Your task to perform on an android device: Clear all items from cart on newegg.com. Add "razer blade" to the cart on newegg.com, then select checkout. Image 0: 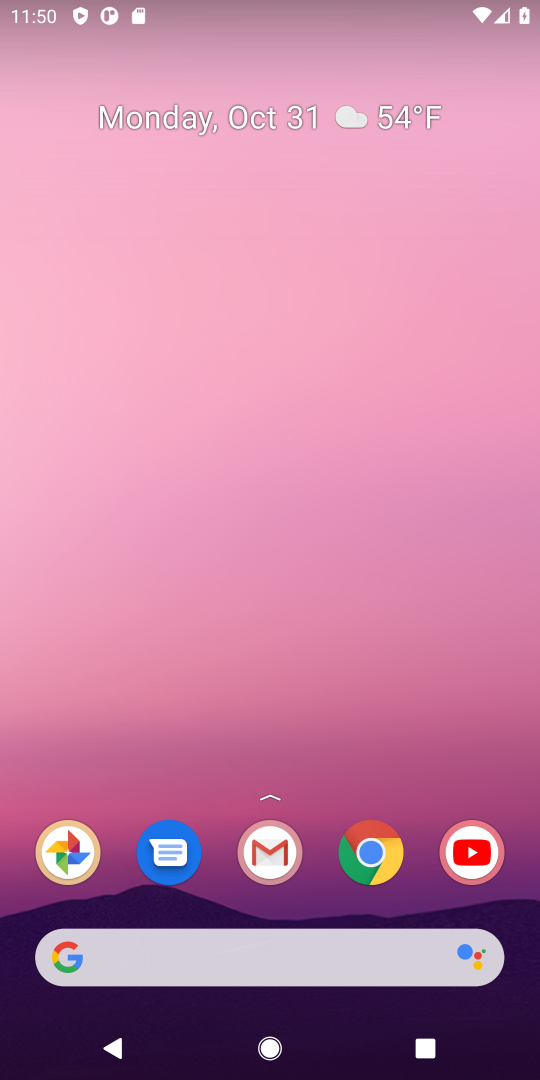
Step 0: click (385, 873)
Your task to perform on an android device: Clear all items from cart on newegg.com. Add "razer blade" to the cart on newegg.com, then select checkout. Image 1: 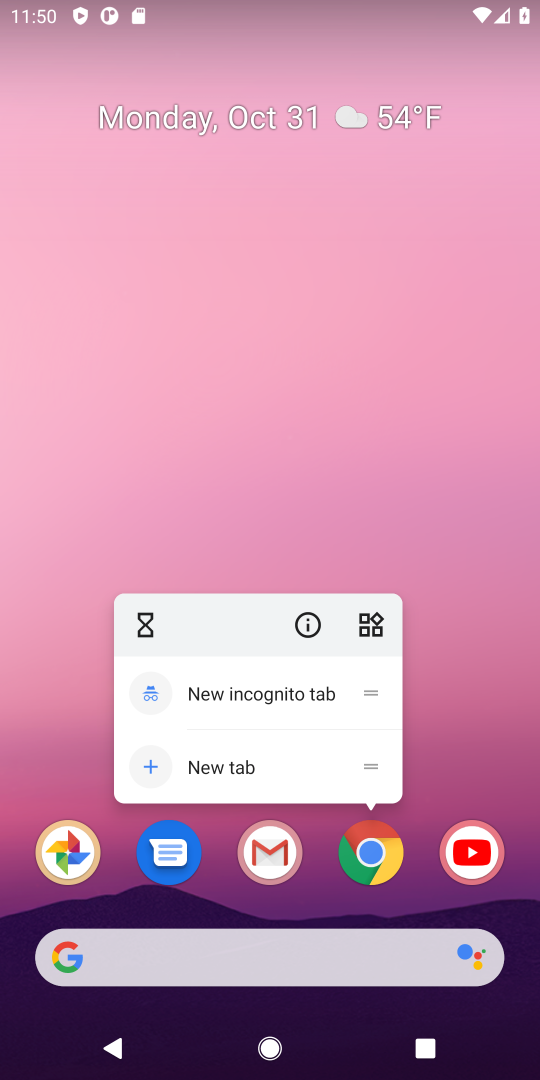
Step 1: click (388, 859)
Your task to perform on an android device: Clear all items from cart on newegg.com. Add "razer blade" to the cart on newegg.com, then select checkout. Image 2: 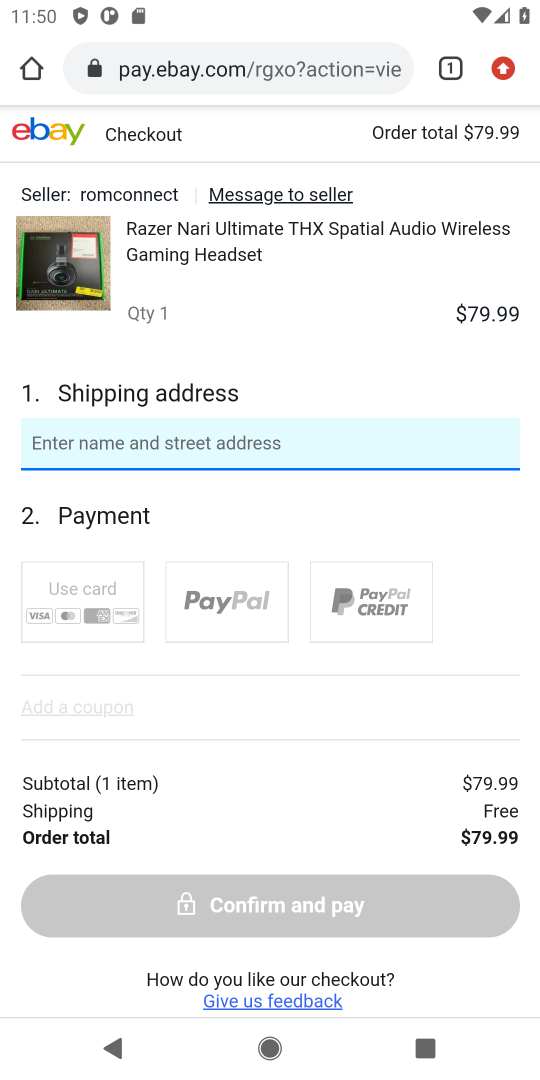
Step 2: click (337, 72)
Your task to perform on an android device: Clear all items from cart on newegg.com. Add "razer blade" to the cart on newegg.com, then select checkout. Image 3: 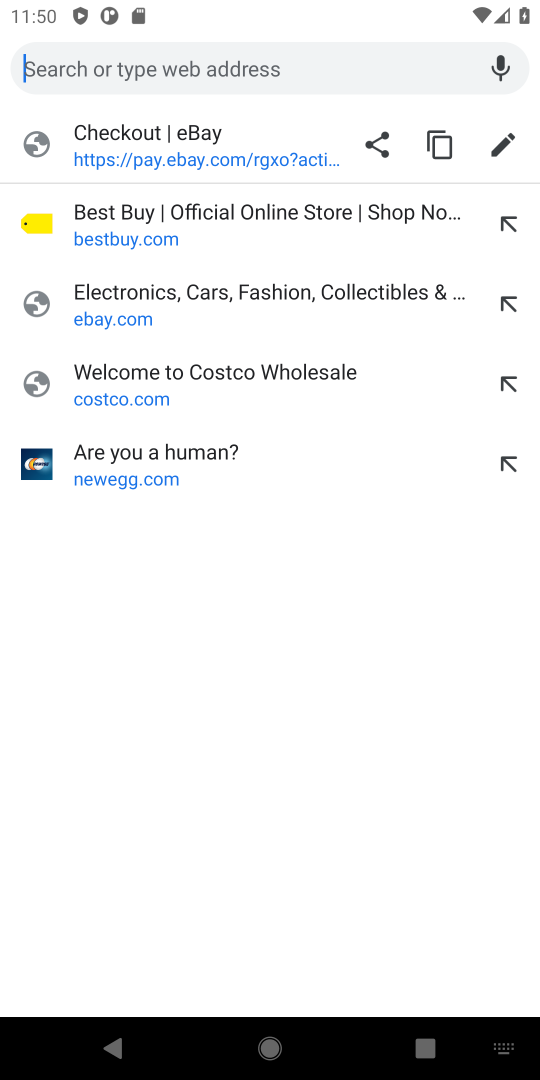
Step 3: type "newegg.com"
Your task to perform on an android device: Clear all items from cart on newegg.com. Add "razer blade" to the cart on newegg.com, then select checkout. Image 4: 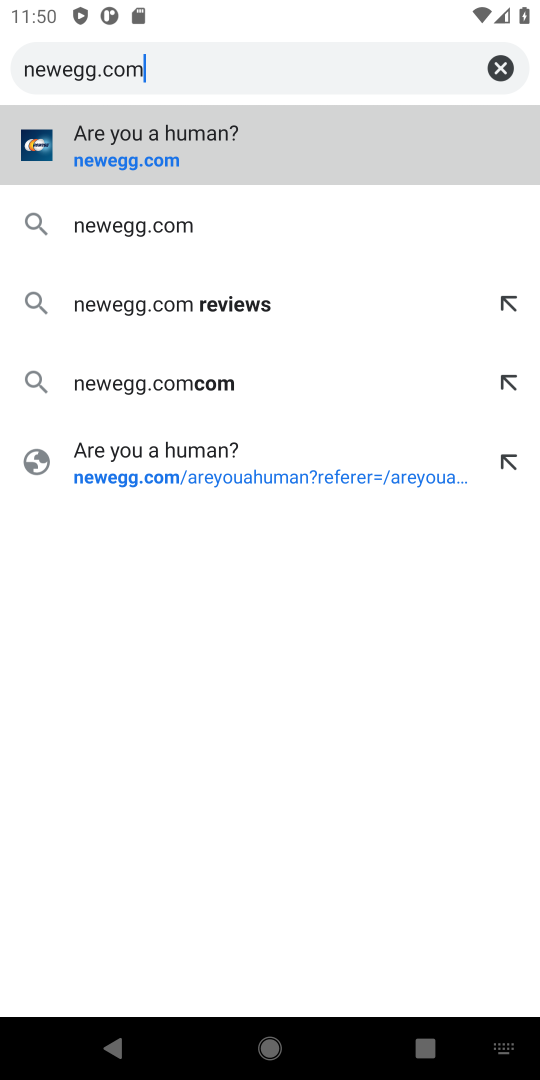
Step 4: press enter
Your task to perform on an android device: Clear all items from cart on newegg.com. Add "razer blade" to the cart on newegg.com, then select checkout. Image 5: 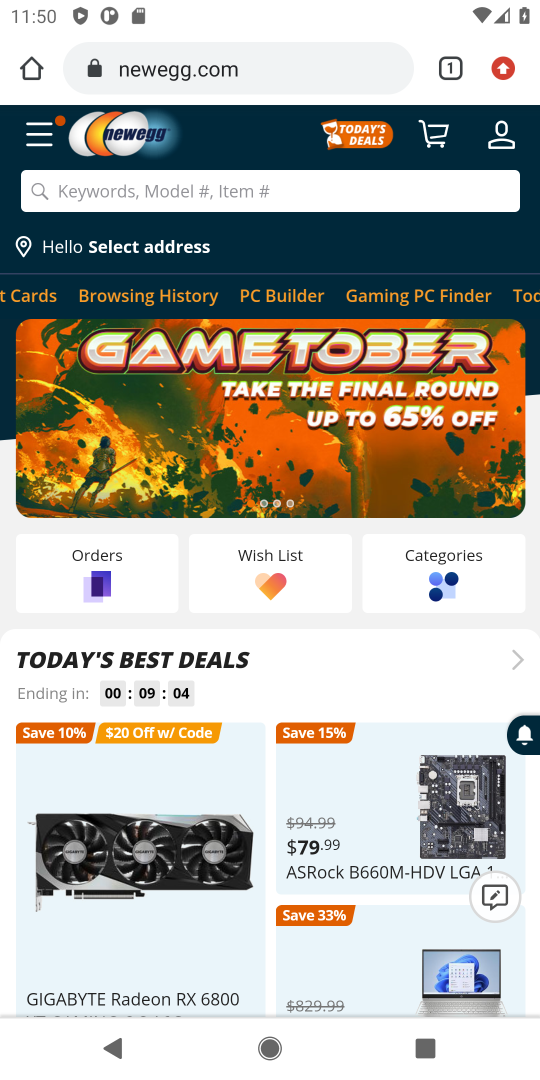
Step 5: click (431, 139)
Your task to perform on an android device: Clear all items from cart on newegg.com. Add "razer blade" to the cart on newegg.com, then select checkout. Image 6: 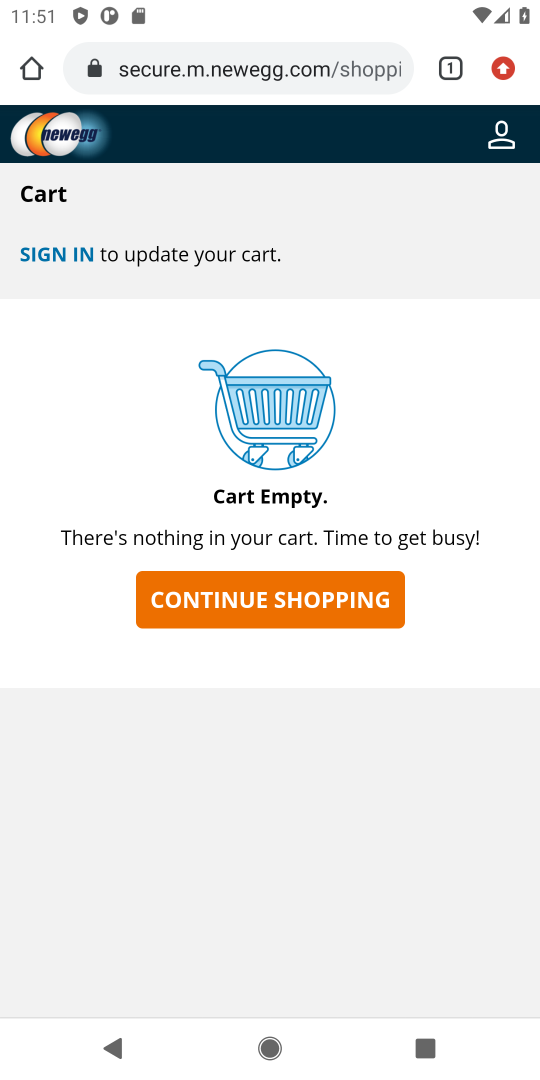
Step 6: click (302, 595)
Your task to perform on an android device: Clear all items from cart on newegg.com. Add "razer blade" to the cart on newegg.com, then select checkout. Image 7: 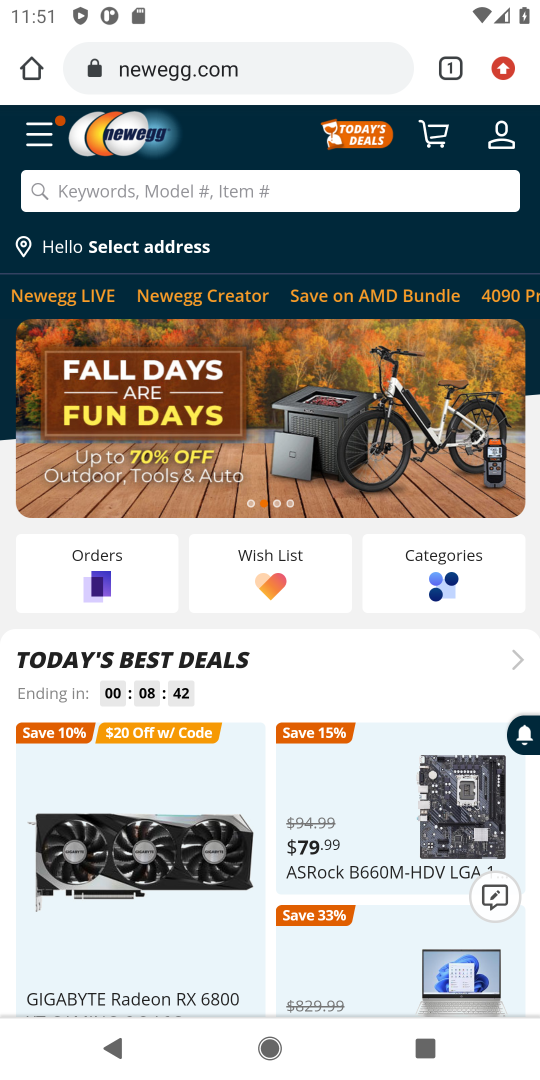
Step 7: click (244, 188)
Your task to perform on an android device: Clear all items from cart on newegg.com. Add "razer blade" to the cart on newegg.com, then select checkout. Image 8: 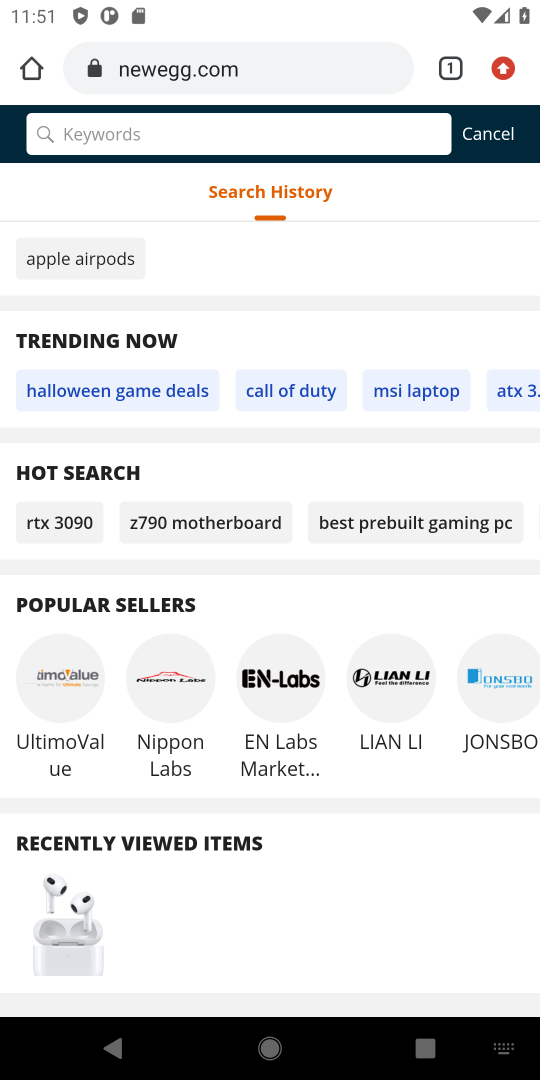
Step 8: type "razer blade"
Your task to perform on an android device: Clear all items from cart on newegg.com. Add "razer blade" to the cart on newegg.com, then select checkout. Image 9: 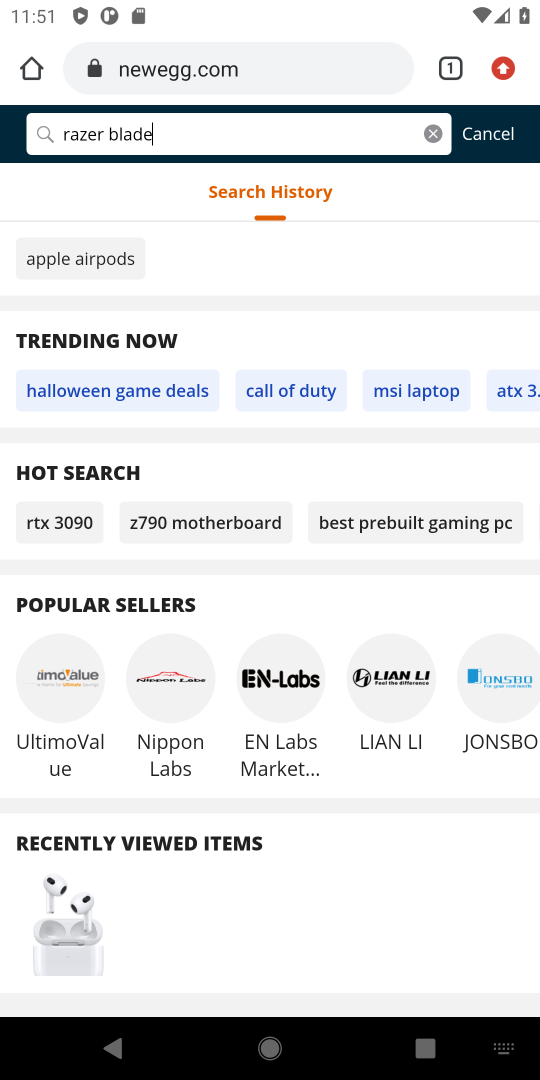
Step 9: type ""
Your task to perform on an android device: Clear all items from cart on newegg.com. Add "razer blade" to the cart on newegg.com, then select checkout. Image 10: 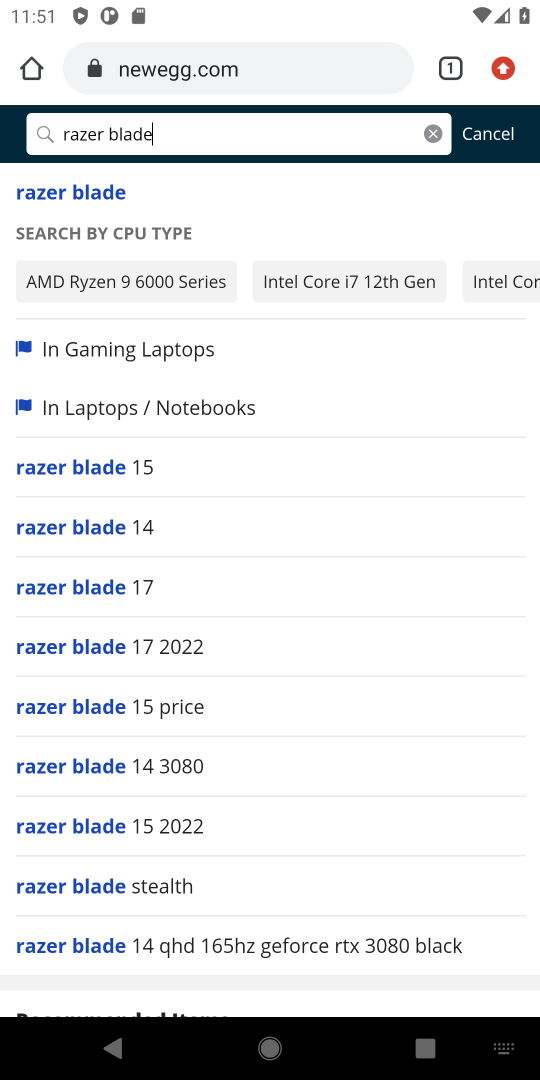
Step 10: press enter
Your task to perform on an android device: Clear all items from cart on newegg.com. Add "razer blade" to the cart on newegg.com, then select checkout. Image 11: 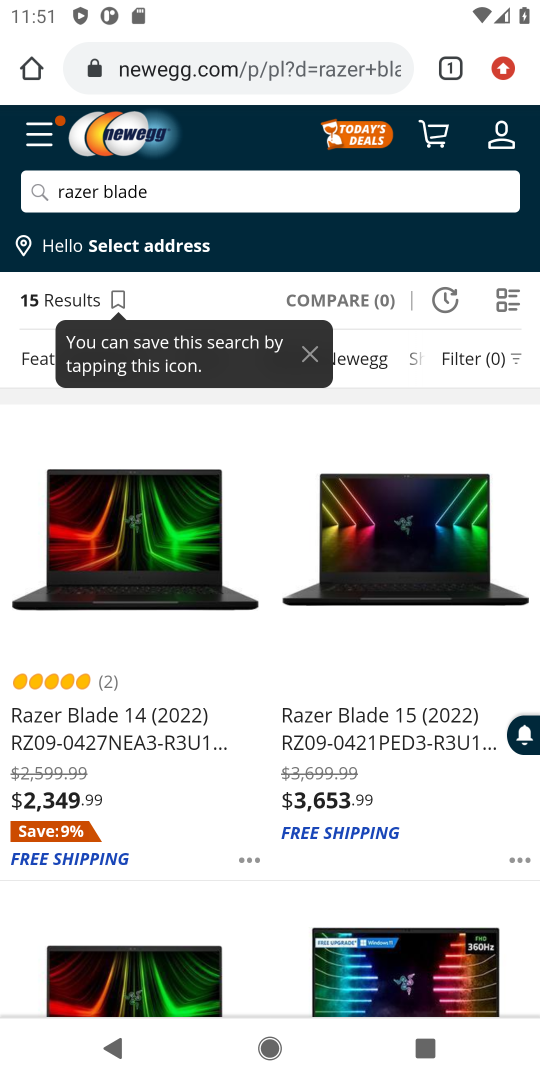
Step 11: click (160, 733)
Your task to perform on an android device: Clear all items from cart on newegg.com. Add "razer blade" to the cart on newegg.com, then select checkout. Image 12: 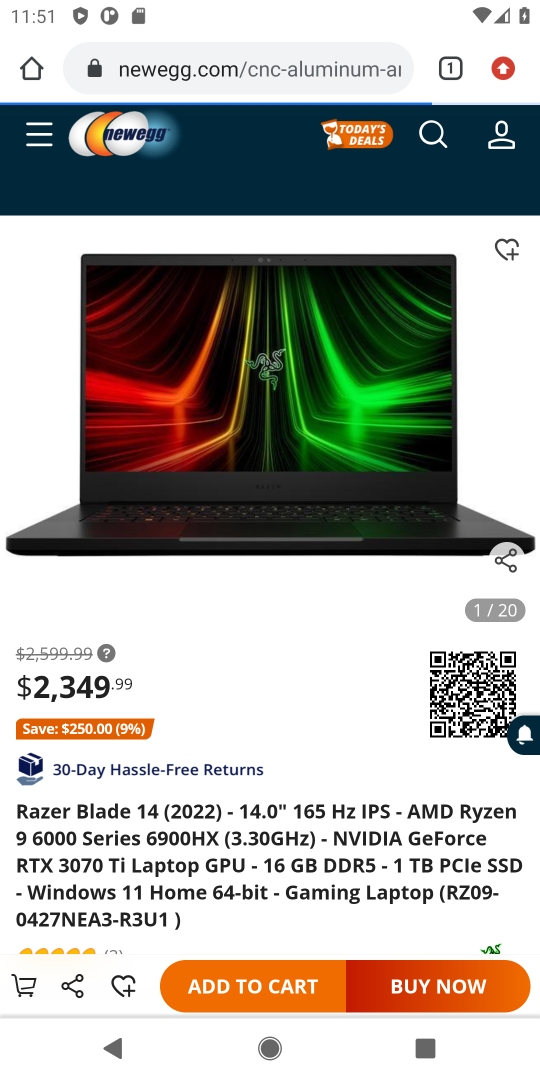
Step 12: click (268, 994)
Your task to perform on an android device: Clear all items from cart on newegg.com. Add "razer blade" to the cart on newegg.com, then select checkout. Image 13: 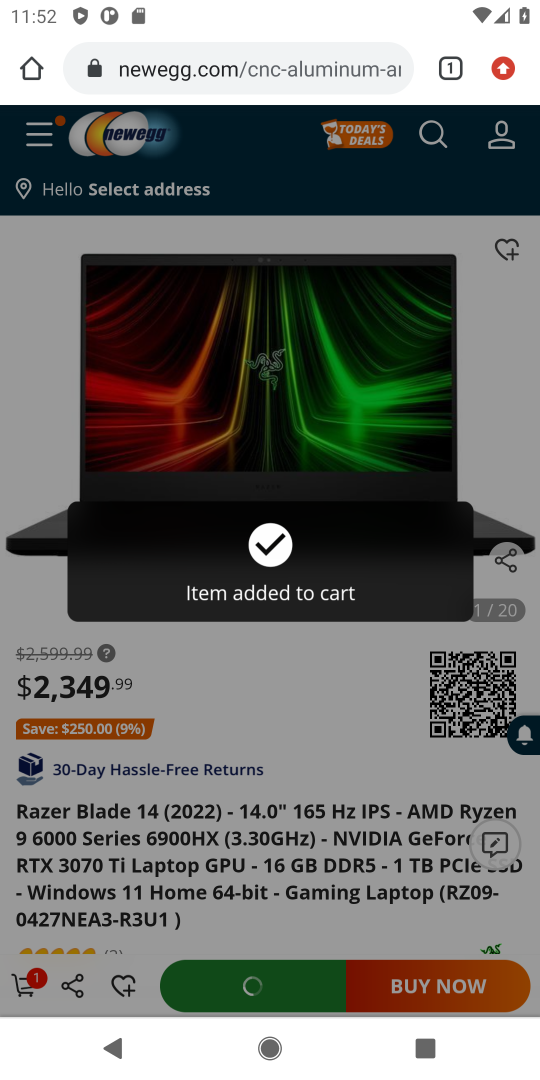
Step 13: click (32, 986)
Your task to perform on an android device: Clear all items from cart on newegg.com. Add "razer blade" to the cart on newegg.com, then select checkout. Image 14: 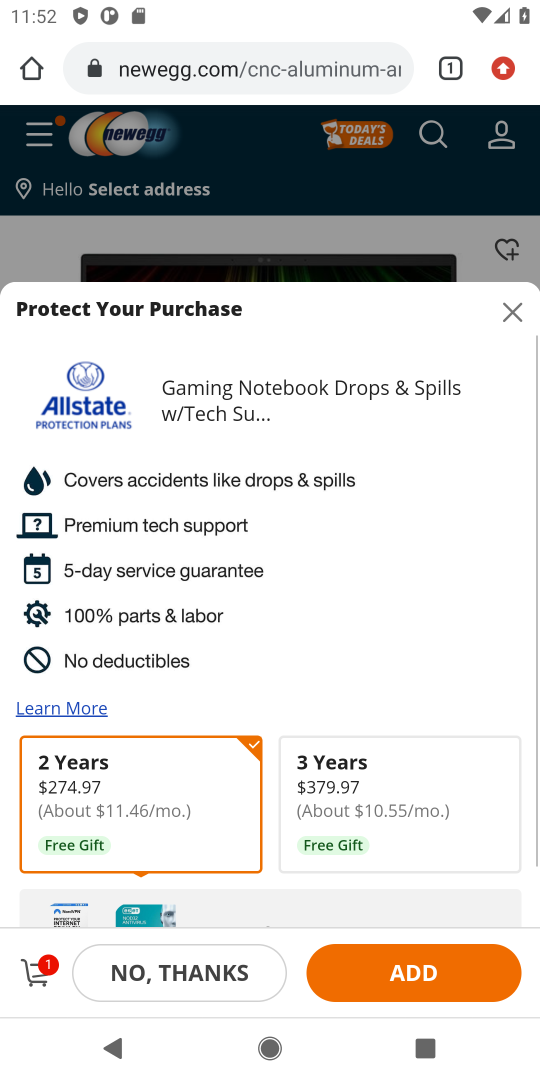
Step 14: click (32, 986)
Your task to perform on an android device: Clear all items from cart on newegg.com. Add "razer blade" to the cart on newegg.com, then select checkout. Image 15: 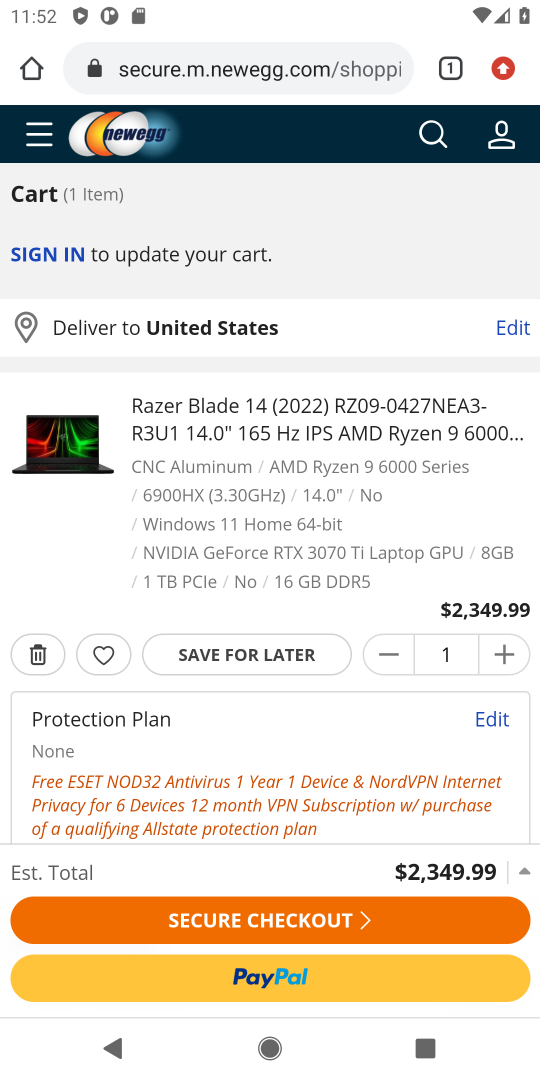
Step 15: click (270, 913)
Your task to perform on an android device: Clear all items from cart on newegg.com. Add "razer blade" to the cart on newegg.com, then select checkout. Image 16: 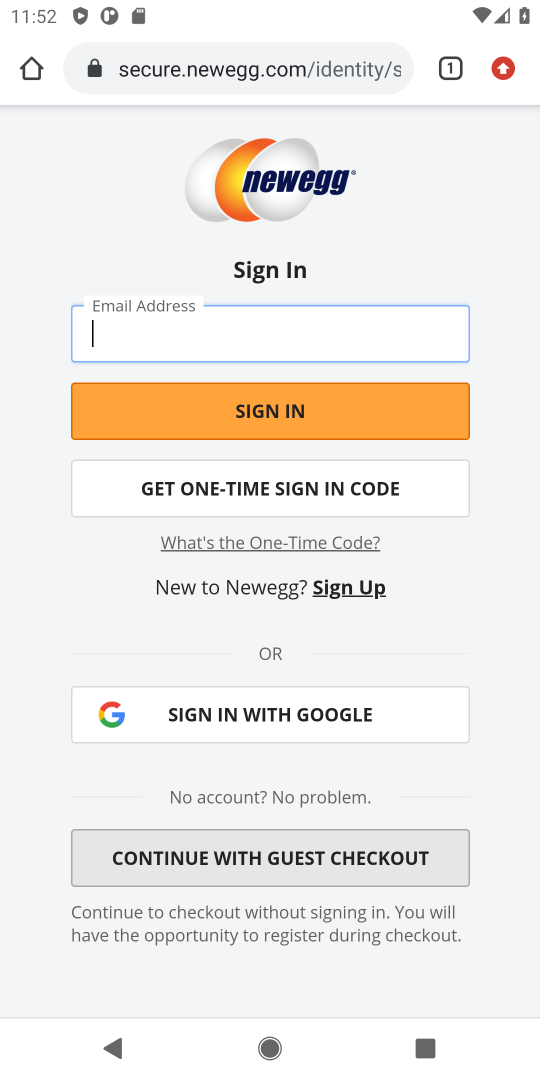
Step 16: task complete